Your task to perform on an android device: Open accessibility settings Image 0: 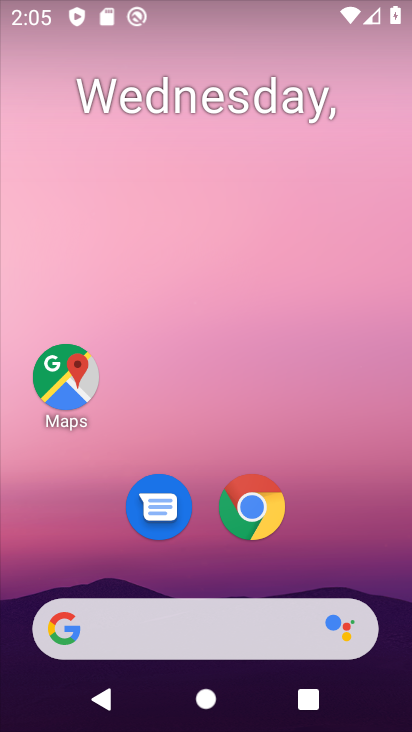
Step 0: drag from (337, 494) to (337, 127)
Your task to perform on an android device: Open accessibility settings Image 1: 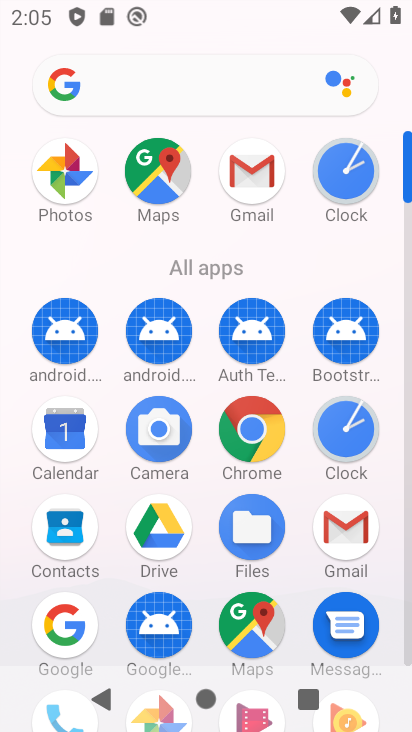
Step 1: drag from (228, 261) to (230, 117)
Your task to perform on an android device: Open accessibility settings Image 2: 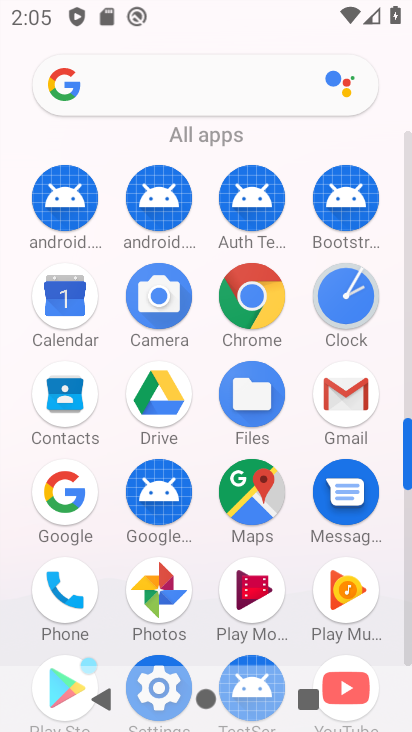
Step 2: click (155, 656)
Your task to perform on an android device: Open accessibility settings Image 3: 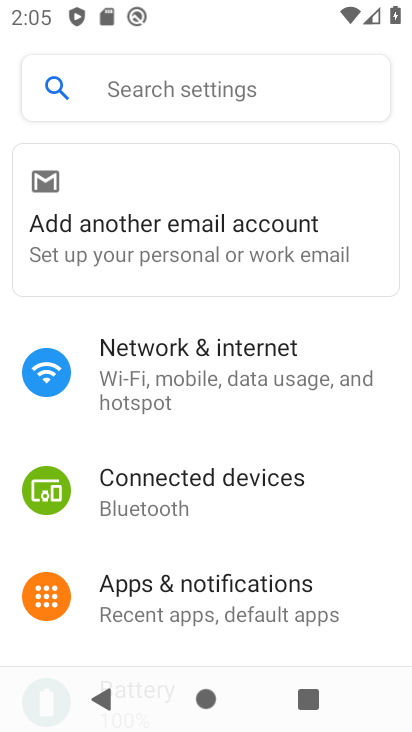
Step 3: drag from (354, 550) to (329, 85)
Your task to perform on an android device: Open accessibility settings Image 4: 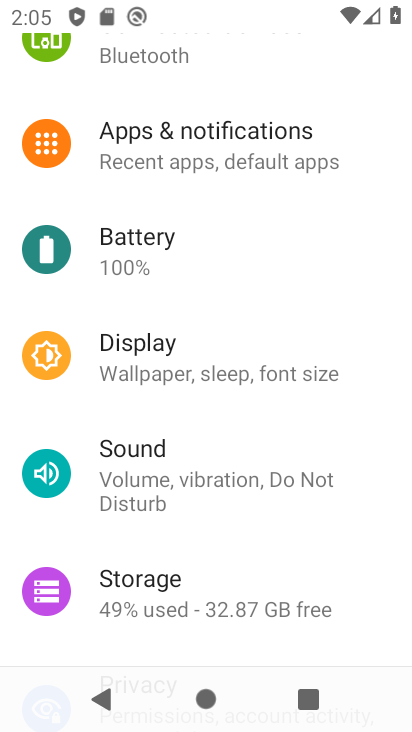
Step 4: drag from (266, 567) to (299, 37)
Your task to perform on an android device: Open accessibility settings Image 5: 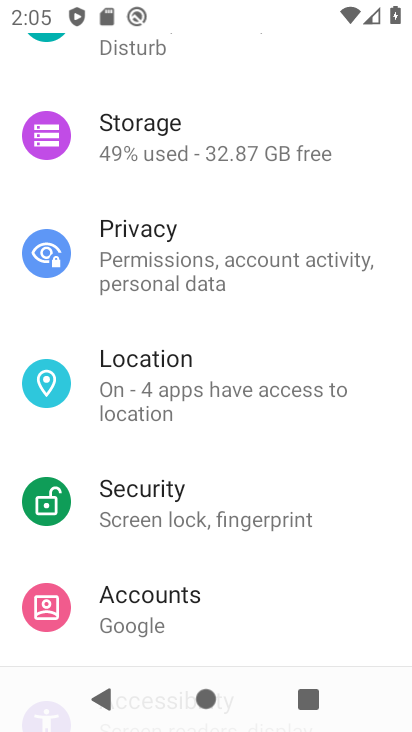
Step 5: drag from (234, 585) to (224, 203)
Your task to perform on an android device: Open accessibility settings Image 6: 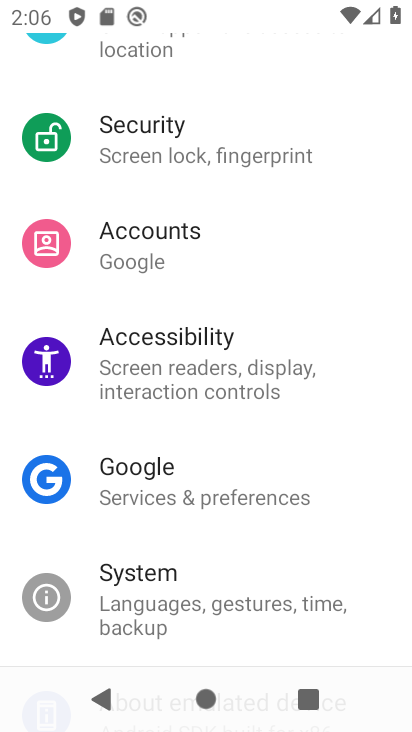
Step 6: click (162, 343)
Your task to perform on an android device: Open accessibility settings Image 7: 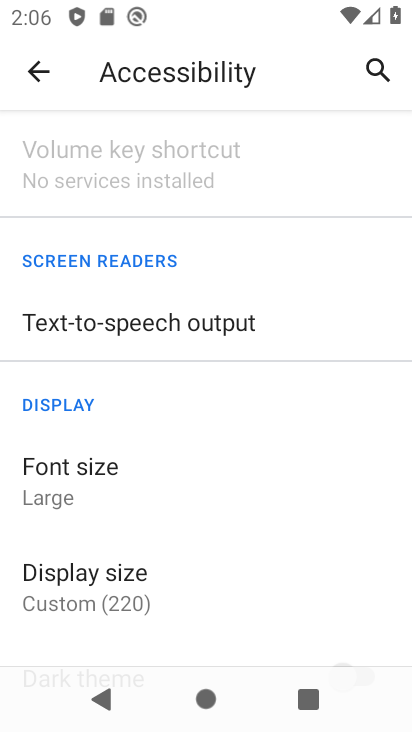
Step 7: task complete